Your task to perform on an android device: Show me productivity apps on the Play Store Image 0: 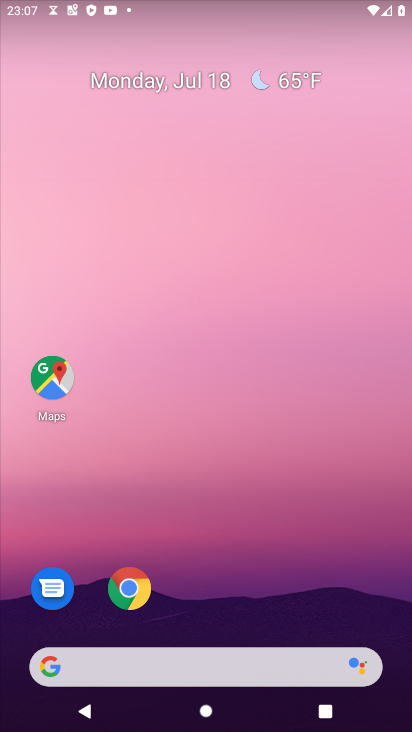
Step 0: drag from (206, 660) to (278, 47)
Your task to perform on an android device: Show me productivity apps on the Play Store Image 1: 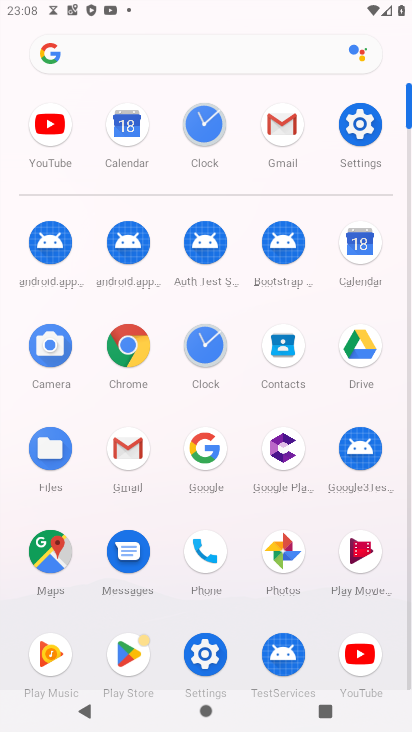
Step 1: click (131, 651)
Your task to perform on an android device: Show me productivity apps on the Play Store Image 2: 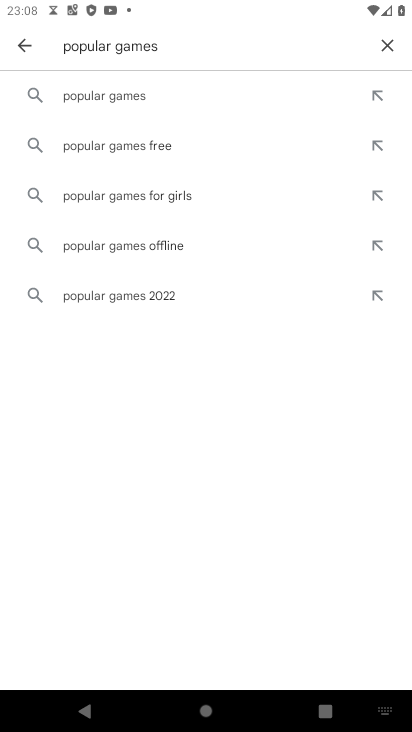
Step 2: click (387, 44)
Your task to perform on an android device: Show me productivity apps on the Play Store Image 3: 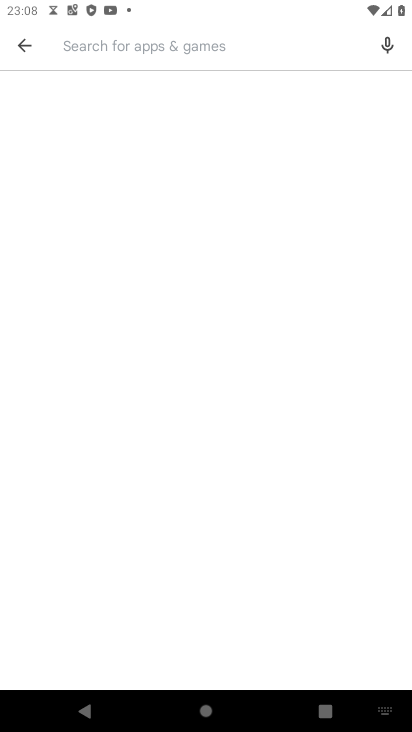
Step 3: press back button
Your task to perform on an android device: Show me productivity apps on the Play Store Image 4: 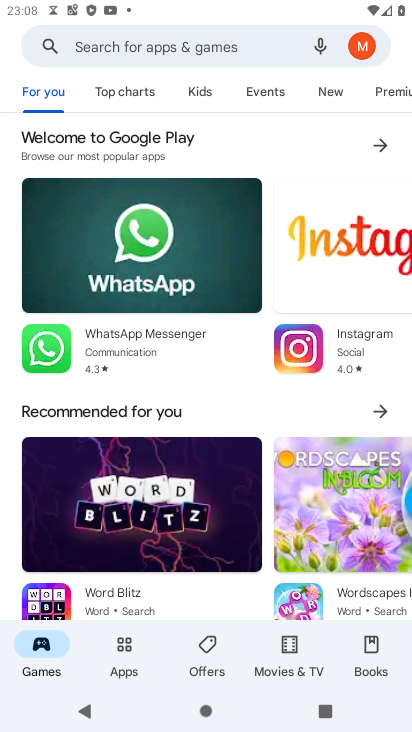
Step 4: click (117, 650)
Your task to perform on an android device: Show me productivity apps on the Play Store Image 5: 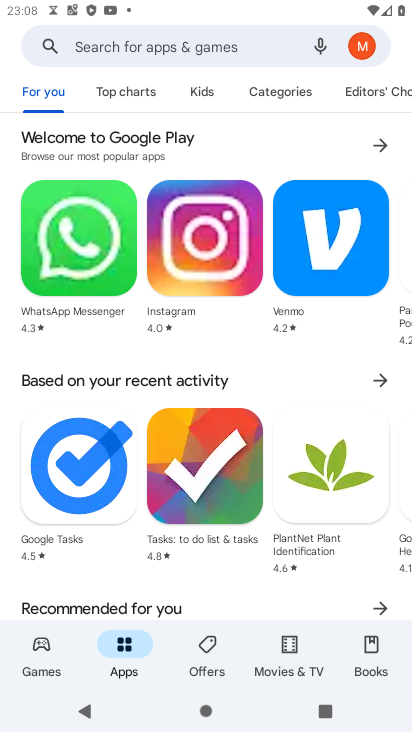
Step 5: click (280, 88)
Your task to perform on an android device: Show me productivity apps on the Play Store Image 6: 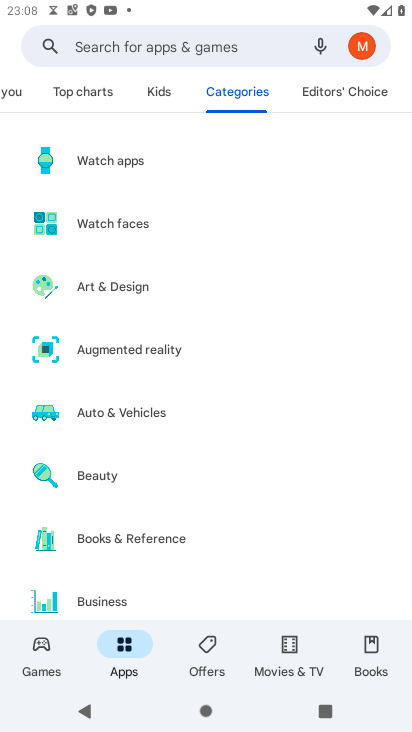
Step 6: drag from (92, 392) to (136, 299)
Your task to perform on an android device: Show me productivity apps on the Play Store Image 7: 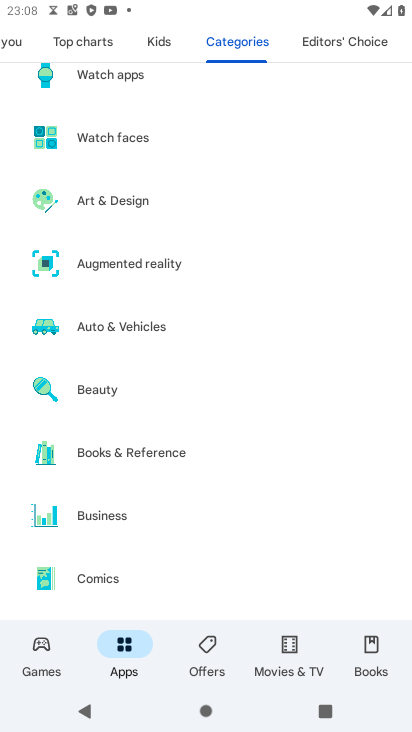
Step 7: drag from (97, 419) to (171, 325)
Your task to perform on an android device: Show me productivity apps on the Play Store Image 8: 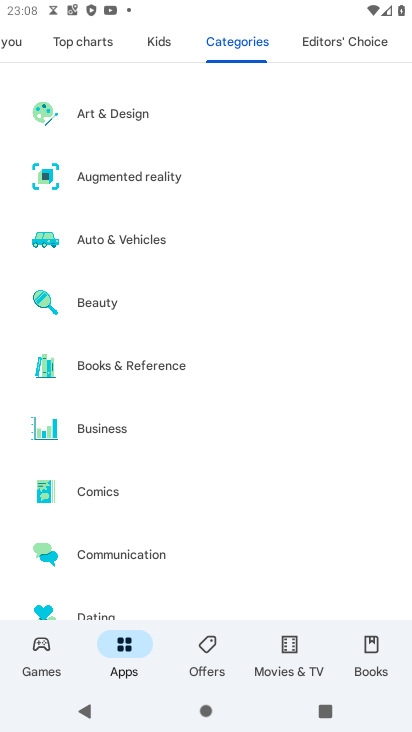
Step 8: drag from (86, 448) to (154, 363)
Your task to perform on an android device: Show me productivity apps on the Play Store Image 9: 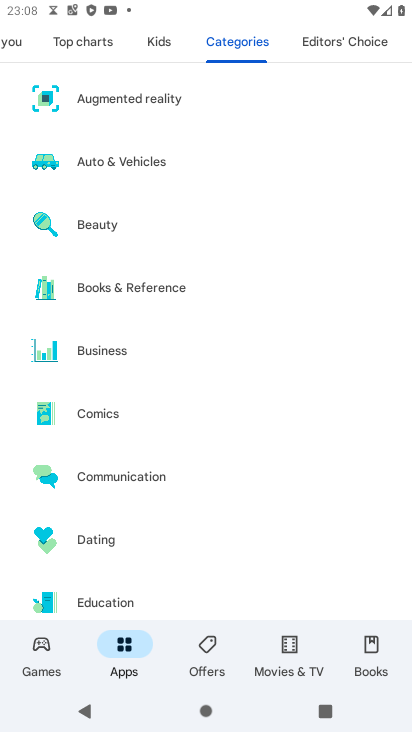
Step 9: drag from (100, 439) to (166, 354)
Your task to perform on an android device: Show me productivity apps on the Play Store Image 10: 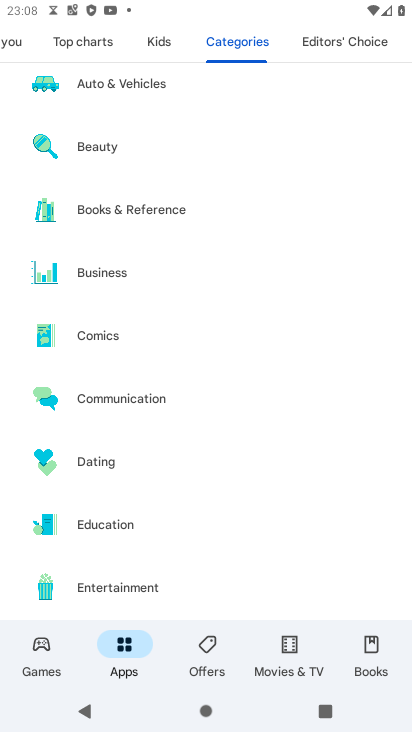
Step 10: drag from (84, 435) to (148, 358)
Your task to perform on an android device: Show me productivity apps on the Play Store Image 11: 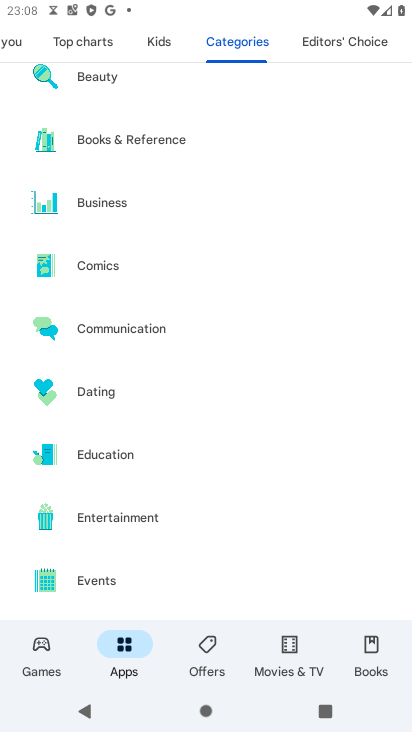
Step 11: drag from (97, 419) to (175, 334)
Your task to perform on an android device: Show me productivity apps on the Play Store Image 12: 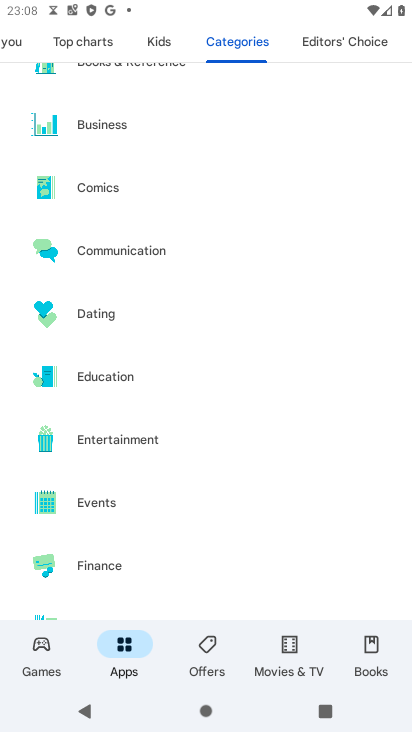
Step 12: drag from (86, 458) to (159, 368)
Your task to perform on an android device: Show me productivity apps on the Play Store Image 13: 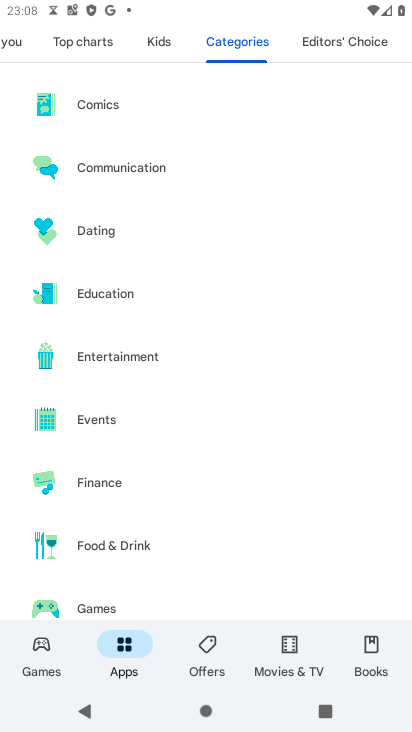
Step 13: drag from (87, 446) to (153, 368)
Your task to perform on an android device: Show me productivity apps on the Play Store Image 14: 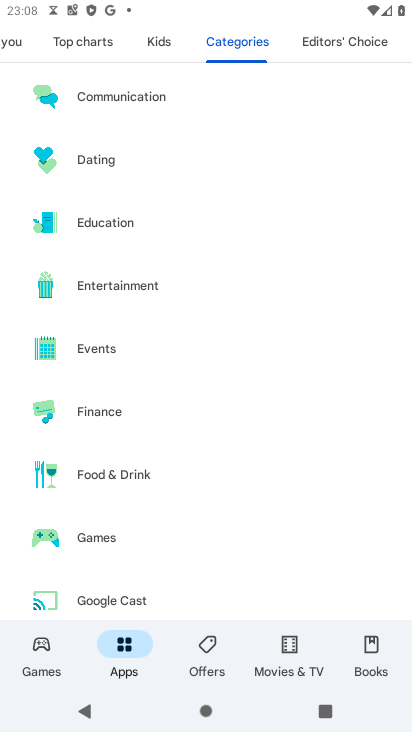
Step 14: drag from (91, 434) to (149, 367)
Your task to perform on an android device: Show me productivity apps on the Play Store Image 15: 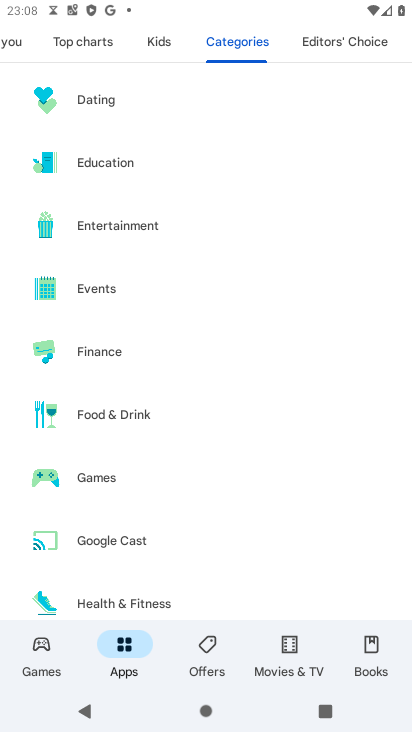
Step 15: drag from (83, 437) to (146, 360)
Your task to perform on an android device: Show me productivity apps on the Play Store Image 16: 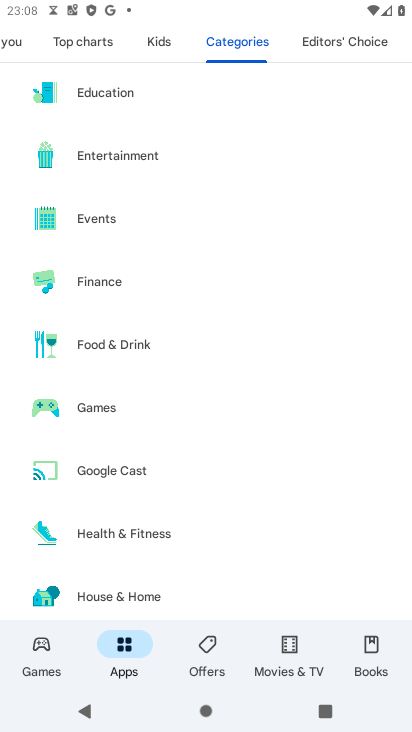
Step 16: drag from (84, 431) to (165, 331)
Your task to perform on an android device: Show me productivity apps on the Play Store Image 17: 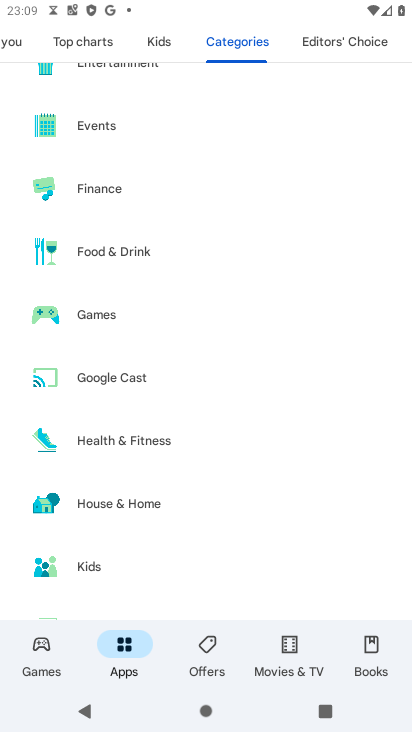
Step 17: drag from (93, 407) to (172, 317)
Your task to perform on an android device: Show me productivity apps on the Play Store Image 18: 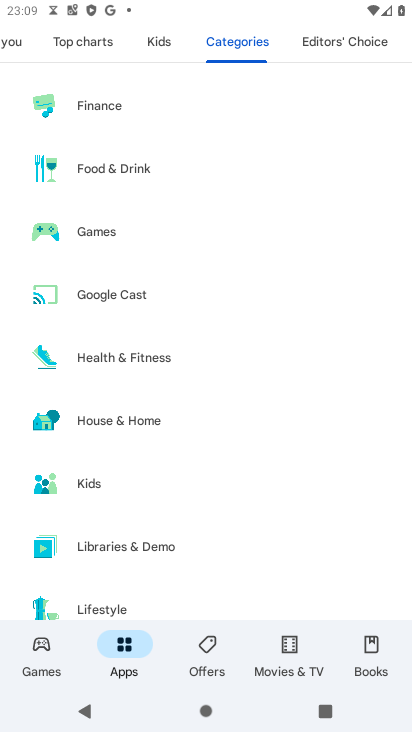
Step 18: drag from (104, 397) to (192, 299)
Your task to perform on an android device: Show me productivity apps on the Play Store Image 19: 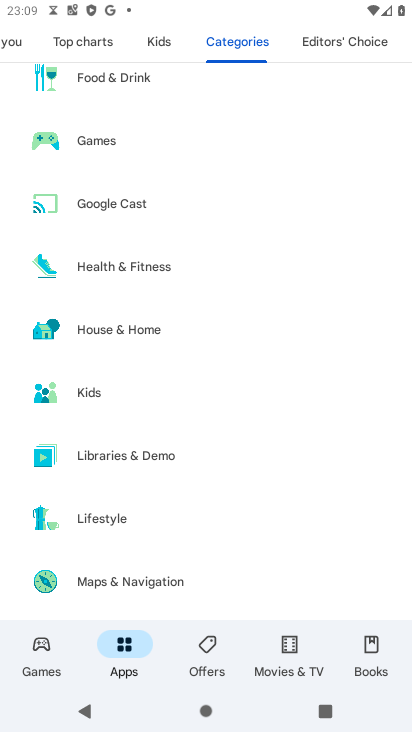
Step 19: drag from (97, 367) to (179, 282)
Your task to perform on an android device: Show me productivity apps on the Play Store Image 20: 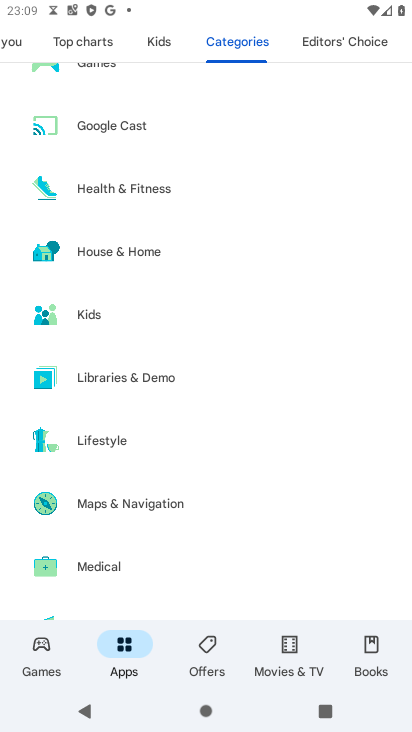
Step 20: drag from (82, 406) to (176, 301)
Your task to perform on an android device: Show me productivity apps on the Play Store Image 21: 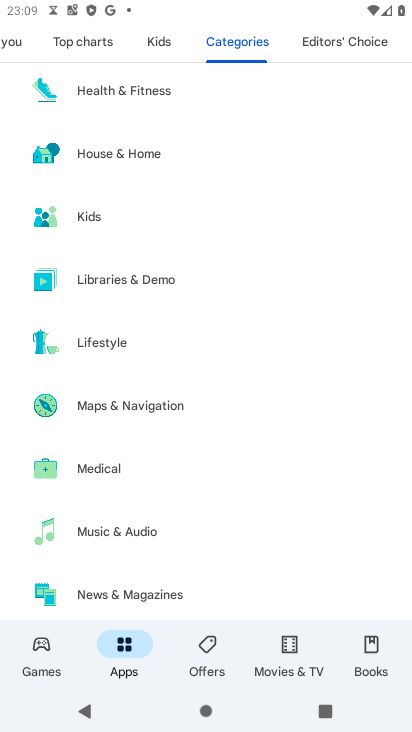
Step 21: drag from (95, 374) to (179, 280)
Your task to perform on an android device: Show me productivity apps on the Play Store Image 22: 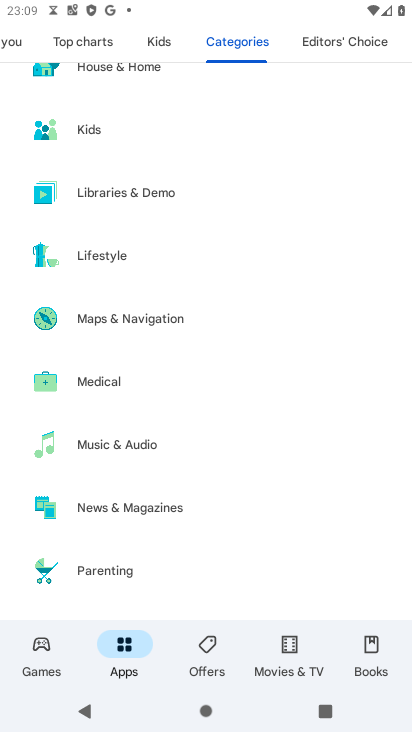
Step 22: drag from (95, 407) to (168, 332)
Your task to perform on an android device: Show me productivity apps on the Play Store Image 23: 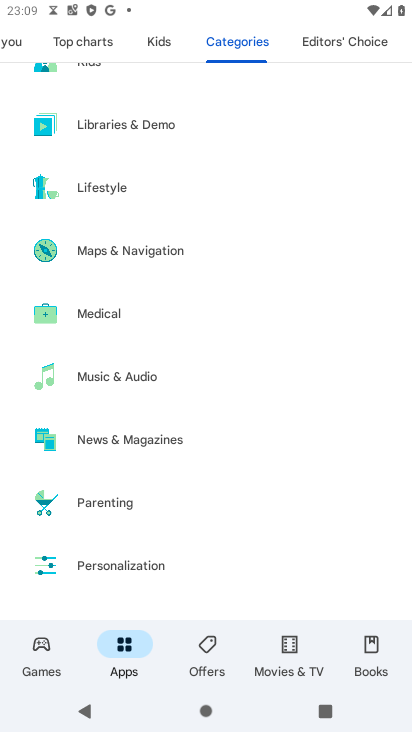
Step 23: drag from (112, 408) to (210, 306)
Your task to perform on an android device: Show me productivity apps on the Play Store Image 24: 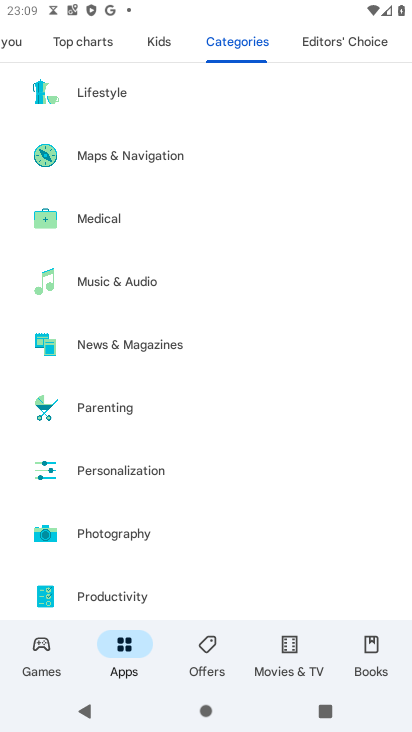
Step 24: drag from (104, 429) to (225, 311)
Your task to perform on an android device: Show me productivity apps on the Play Store Image 25: 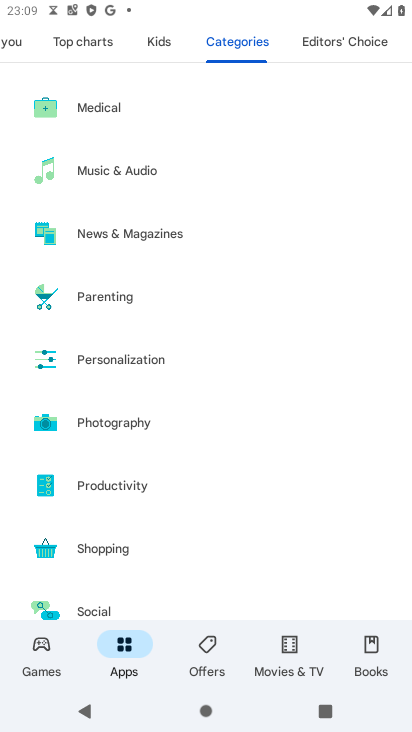
Step 25: click (104, 490)
Your task to perform on an android device: Show me productivity apps on the Play Store Image 26: 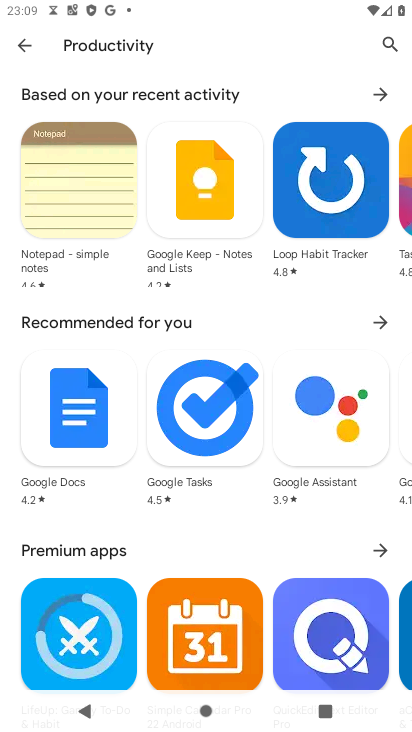
Step 26: task complete